Your task to perform on an android device: Open location settings Image 0: 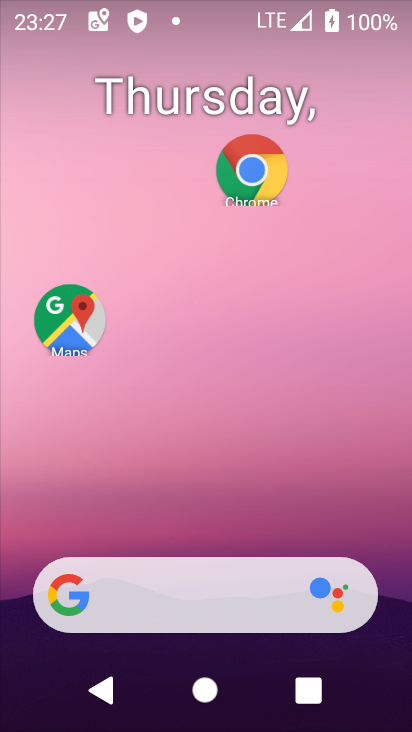
Step 0: drag from (204, 561) to (172, 194)
Your task to perform on an android device: Open location settings Image 1: 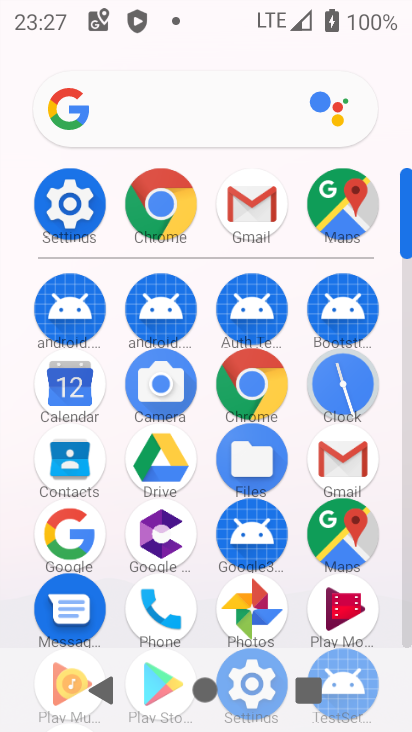
Step 1: click (88, 216)
Your task to perform on an android device: Open location settings Image 2: 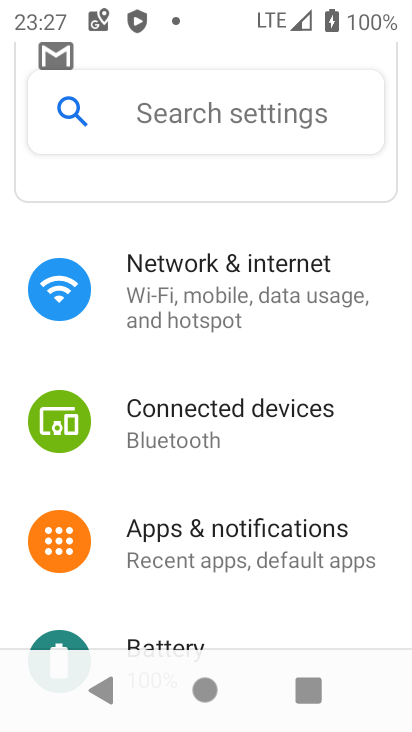
Step 2: drag from (234, 598) to (259, 261)
Your task to perform on an android device: Open location settings Image 3: 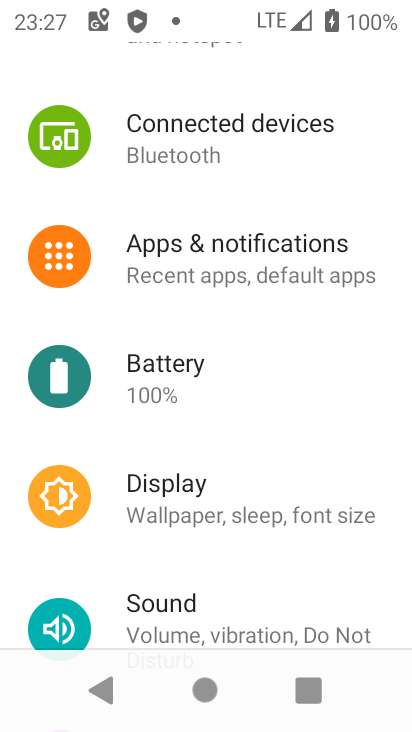
Step 3: drag from (230, 569) to (223, 296)
Your task to perform on an android device: Open location settings Image 4: 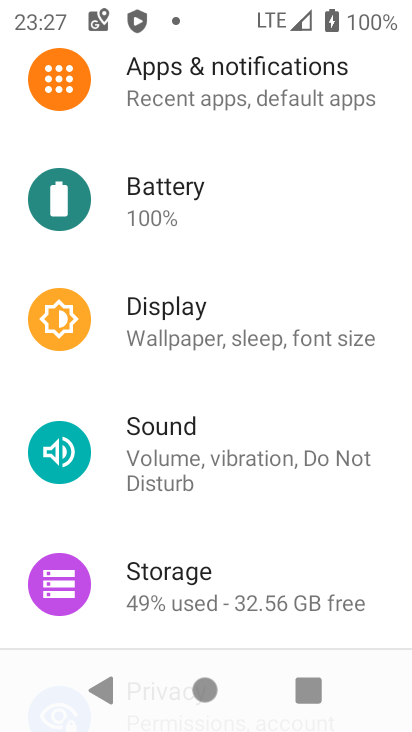
Step 4: drag from (194, 605) to (195, 313)
Your task to perform on an android device: Open location settings Image 5: 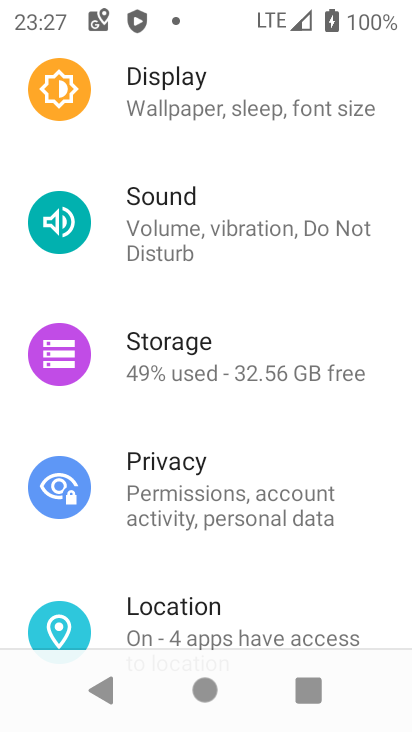
Step 5: click (186, 617)
Your task to perform on an android device: Open location settings Image 6: 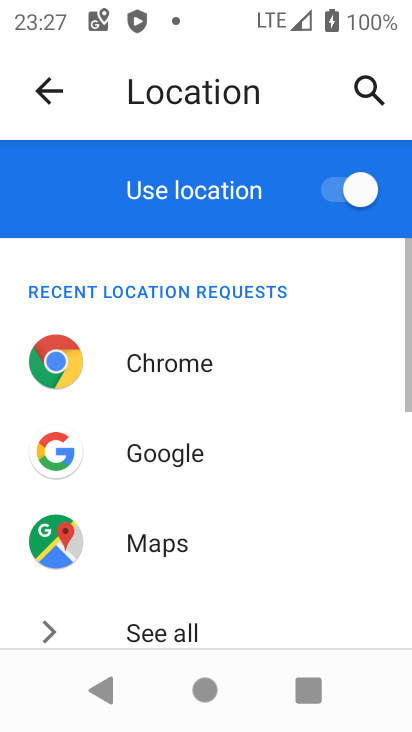
Step 6: task complete